Your task to perform on an android device: turn off airplane mode Image 0: 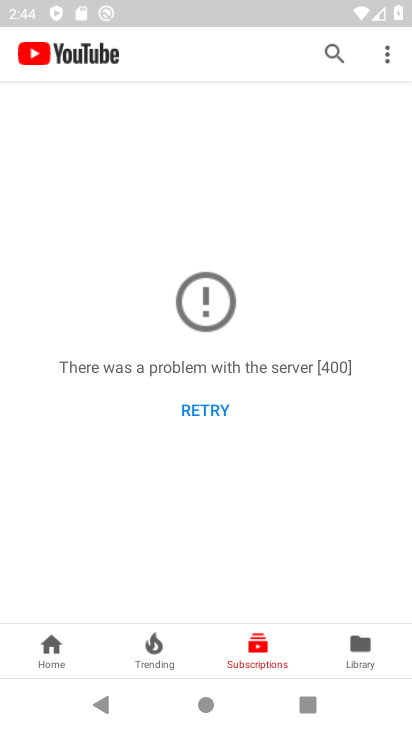
Step 0: press back button
Your task to perform on an android device: turn off airplane mode Image 1: 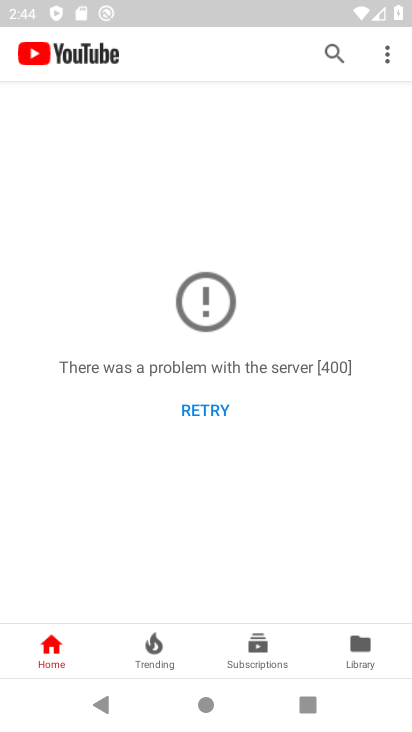
Step 1: press home button
Your task to perform on an android device: turn off airplane mode Image 2: 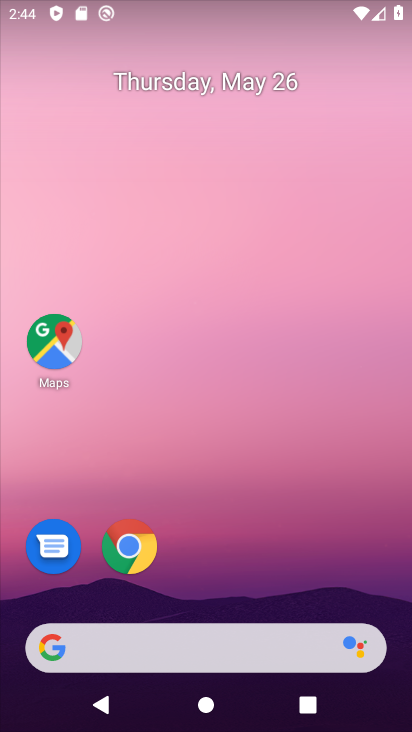
Step 2: drag from (400, 647) to (392, 135)
Your task to perform on an android device: turn off airplane mode Image 3: 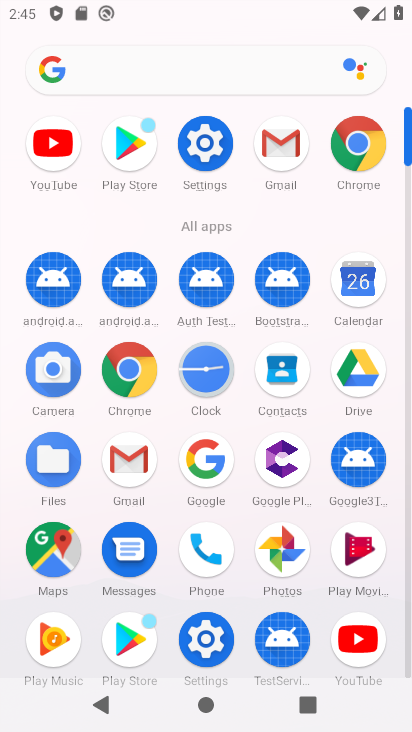
Step 3: click (204, 633)
Your task to perform on an android device: turn off airplane mode Image 4: 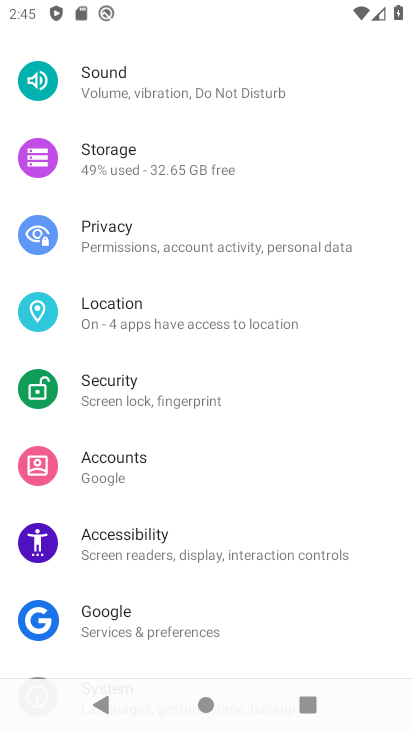
Step 4: drag from (320, 93) to (324, 509)
Your task to perform on an android device: turn off airplane mode Image 5: 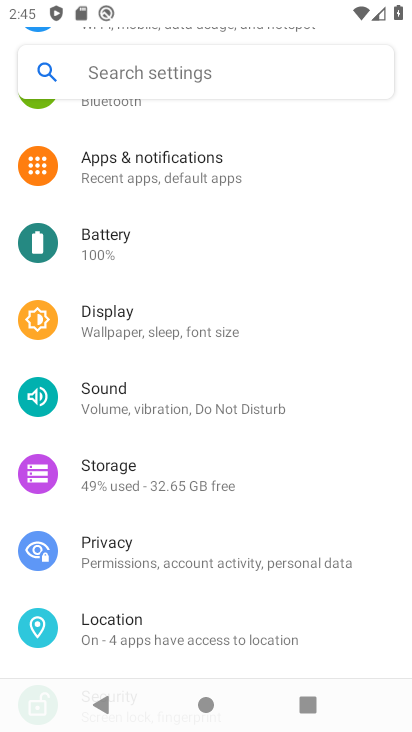
Step 5: drag from (331, 215) to (398, 566)
Your task to perform on an android device: turn off airplane mode Image 6: 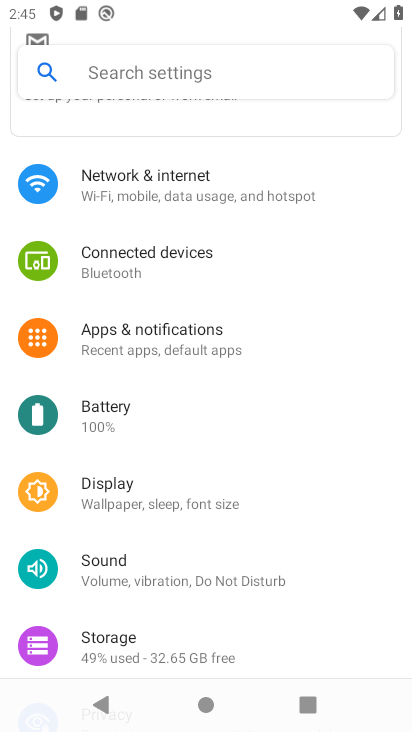
Step 6: click (172, 181)
Your task to perform on an android device: turn off airplane mode Image 7: 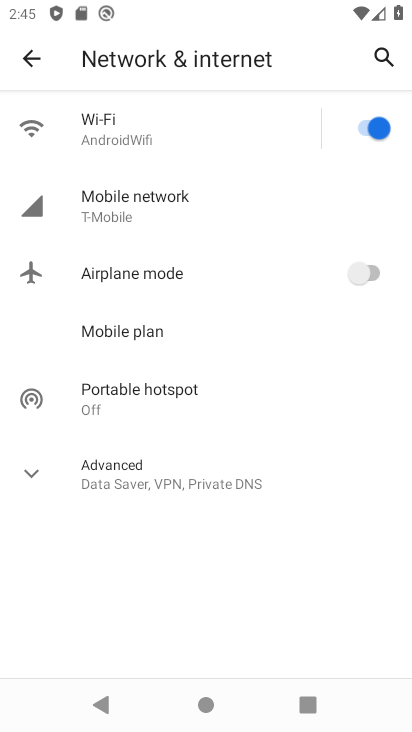
Step 7: task complete